Your task to perform on an android device: toggle translation in the chrome app Image 0: 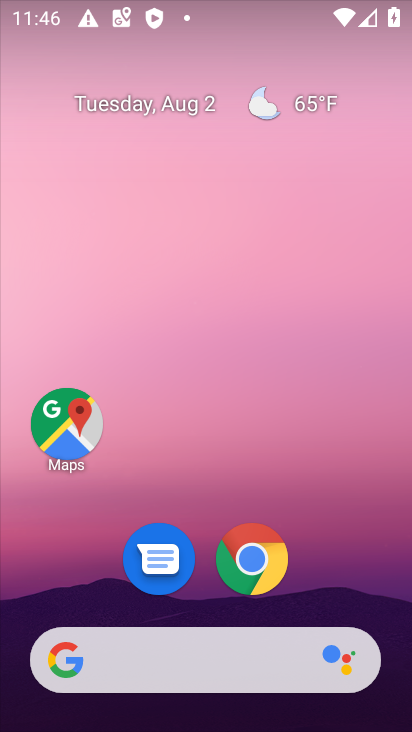
Step 0: click (249, 549)
Your task to perform on an android device: toggle translation in the chrome app Image 1: 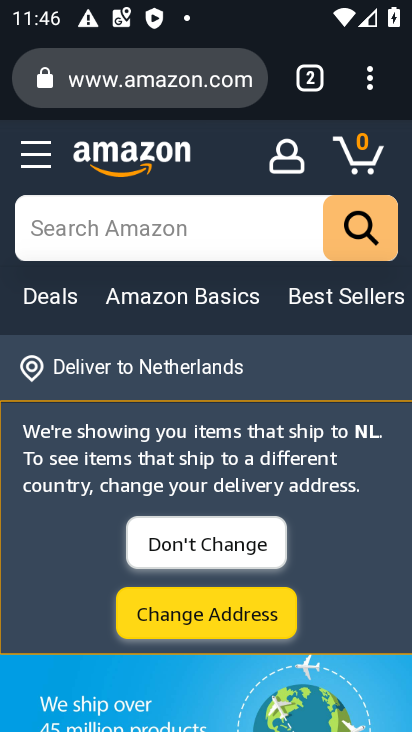
Step 1: click (371, 86)
Your task to perform on an android device: toggle translation in the chrome app Image 2: 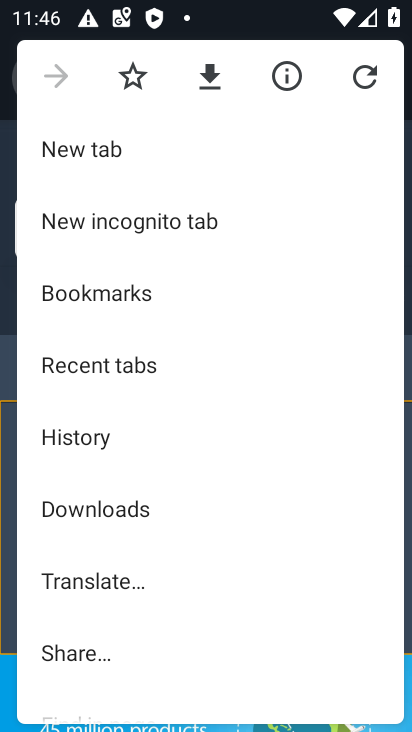
Step 2: drag from (99, 617) to (103, 224)
Your task to perform on an android device: toggle translation in the chrome app Image 3: 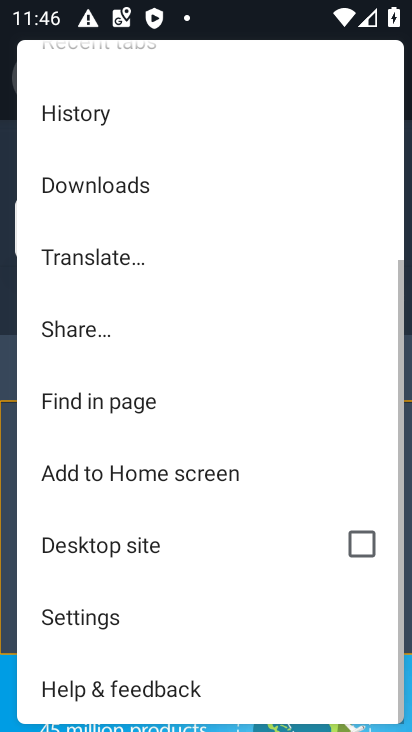
Step 3: click (85, 609)
Your task to perform on an android device: toggle translation in the chrome app Image 4: 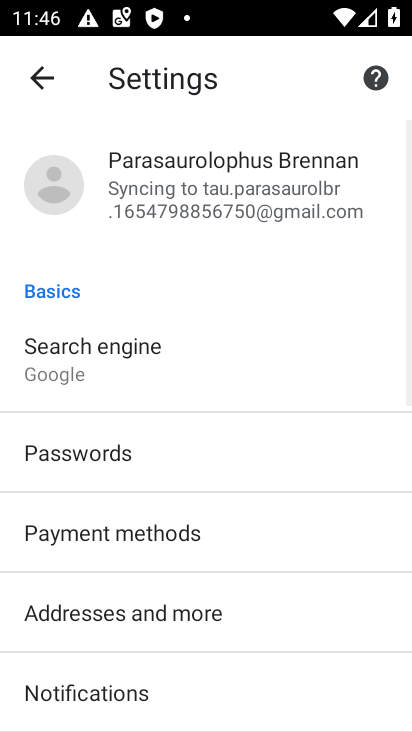
Step 4: drag from (180, 698) to (177, 377)
Your task to perform on an android device: toggle translation in the chrome app Image 5: 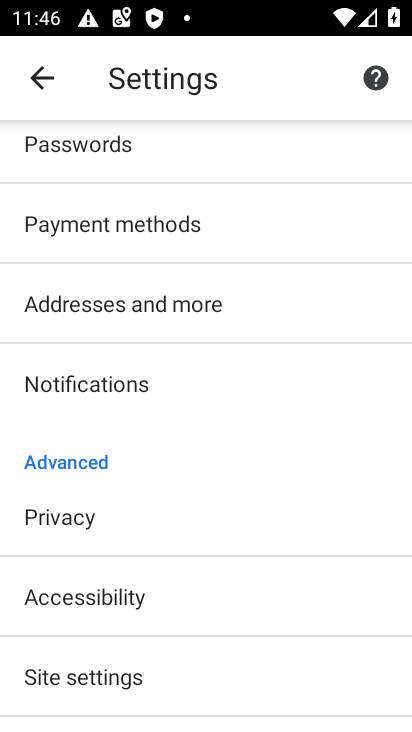
Step 5: click (112, 378)
Your task to perform on an android device: toggle translation in the chrome app Image 6: 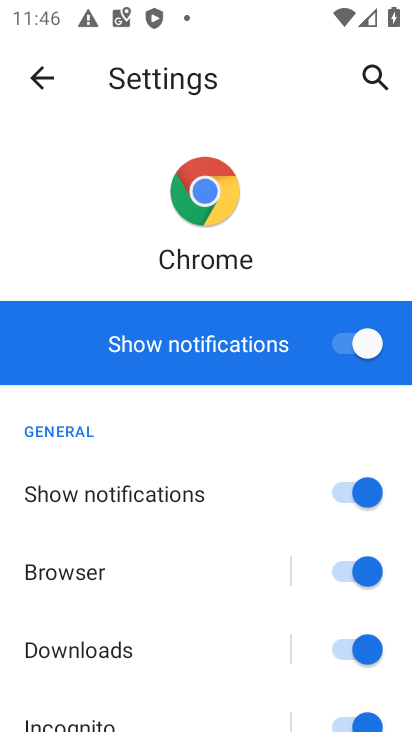
Step 6: click (339, 338)
Your task to perform on an android device: toggle translation in the chrome app Image 7: 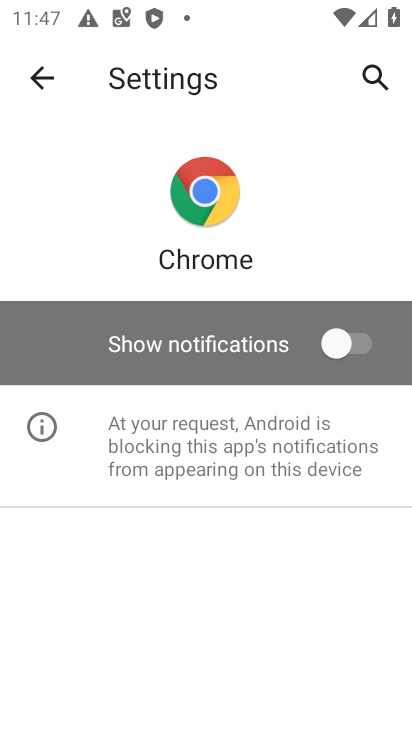
Step 7: task complete